Your task to perform on an android device: turn off location history Image 0: 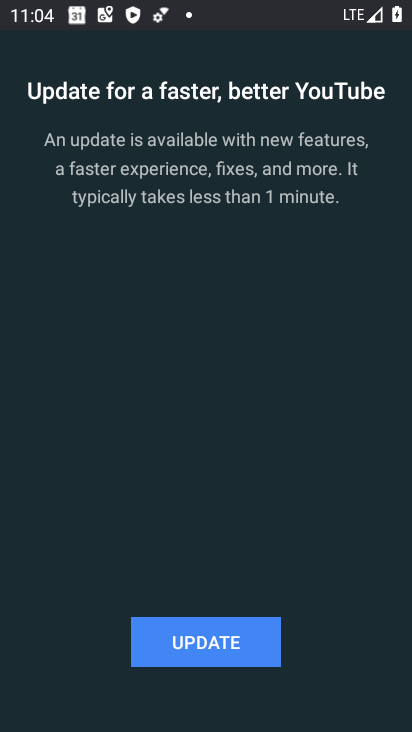
Step 0: press home button
Your task to perform on an android device: turn off location history Image 1: 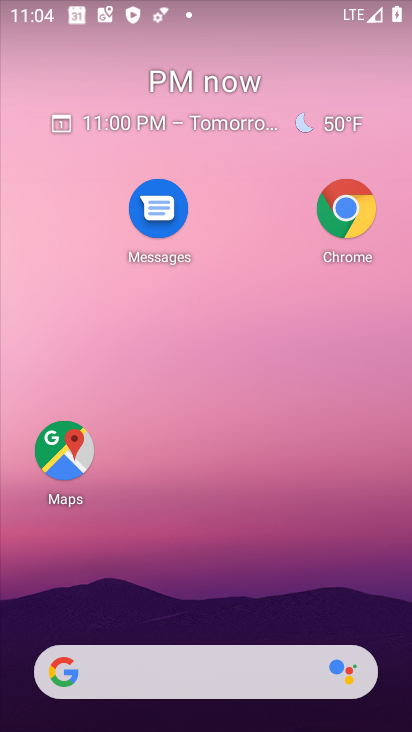
Step 1: drag from (189, 618) to (211, 29)
Your task to perform on an android device: turn off location history Image 2: 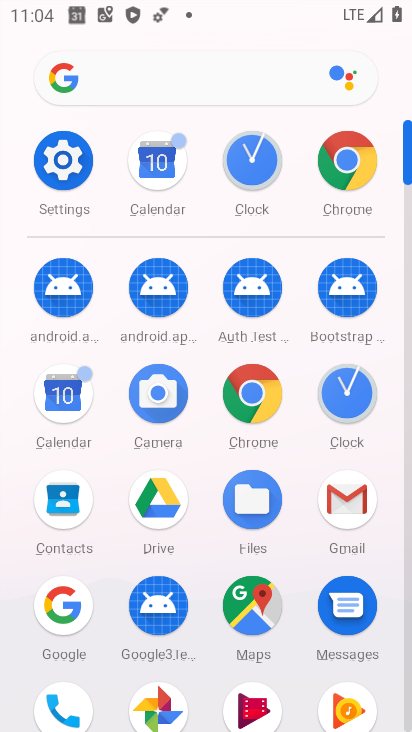
Step 2: click (64, 159)
Your task to perform on an android device: turn off location history Image 3: 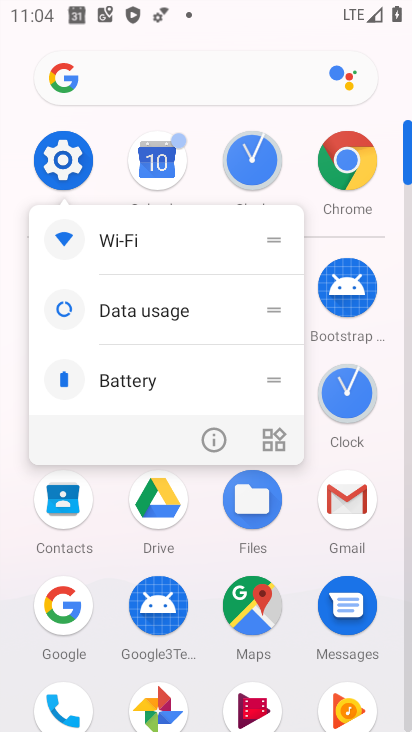
Step 3: click (64, 159)
Your task to perform on an android device: turn off location history Image 4: 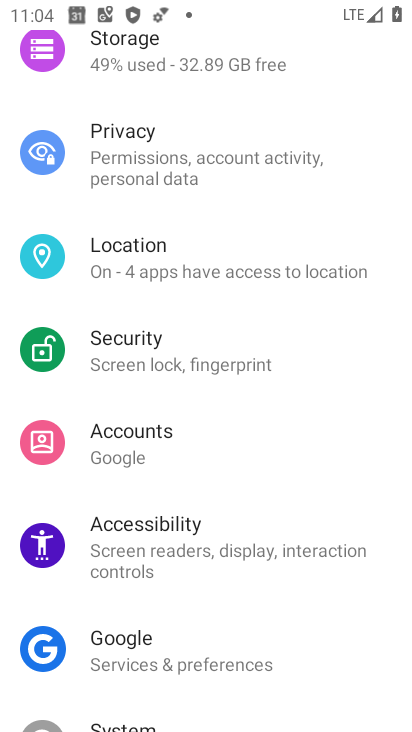
Step 4: click (129, 256)
Your task to perform on an android device: turn off location history Image 5: 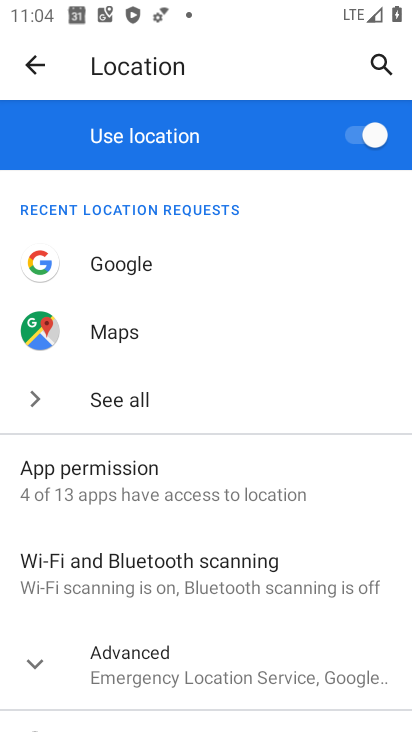
Step 5: click (220, 685)
Your task to perform on an android device: turn off location history Image 6: 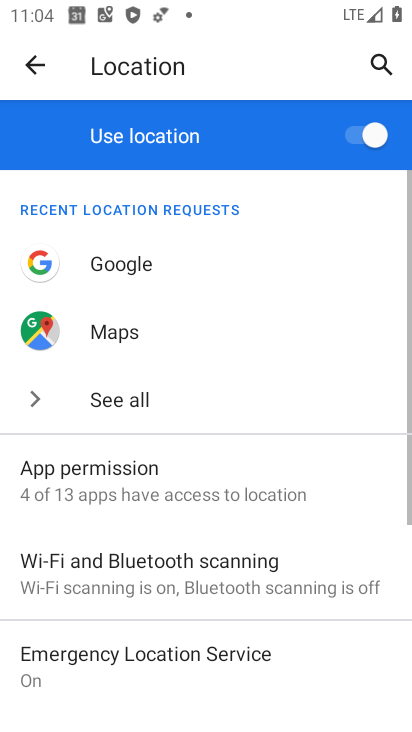
Step 6: drag from (214, 649) to (185, 226)
Your task to perform on an android device: turn off location history Image 7: 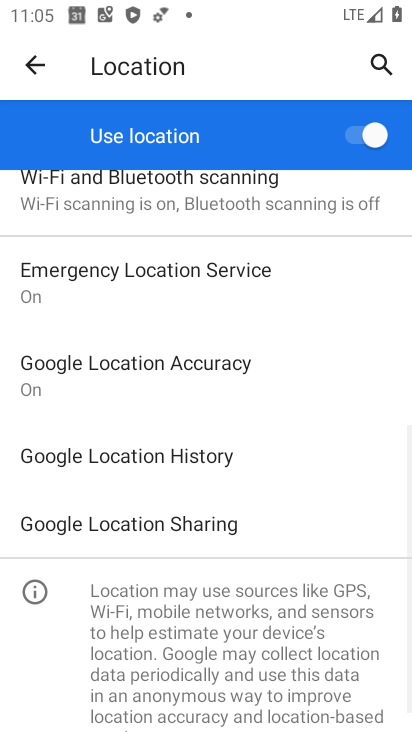
Step 7: click (139, 450)
Your task to perform on an android device: turn off location history Image 8: 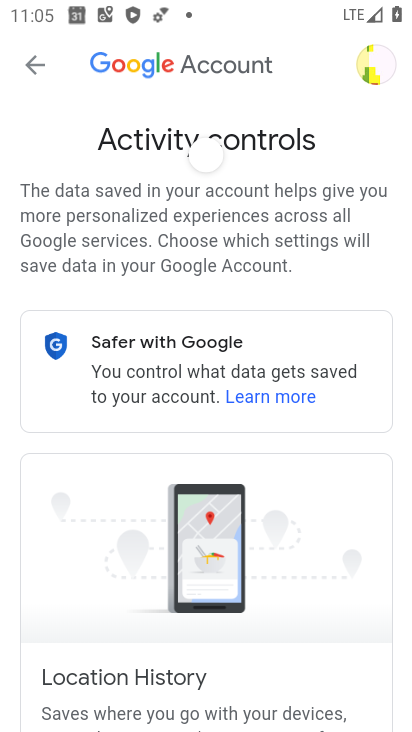
Step 8: drag from (228, 630) to (160, 54)
Your task to perform on an android device: turn off location history Image 9: 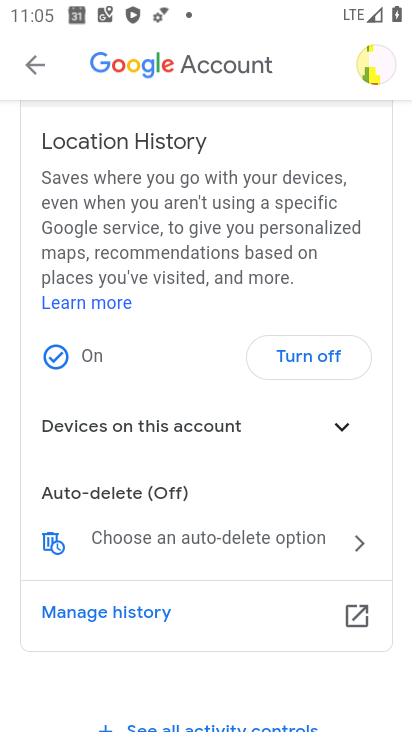
Step 9: click (308, 342)
Your task to perform on an android device: turn off location history Image 10: 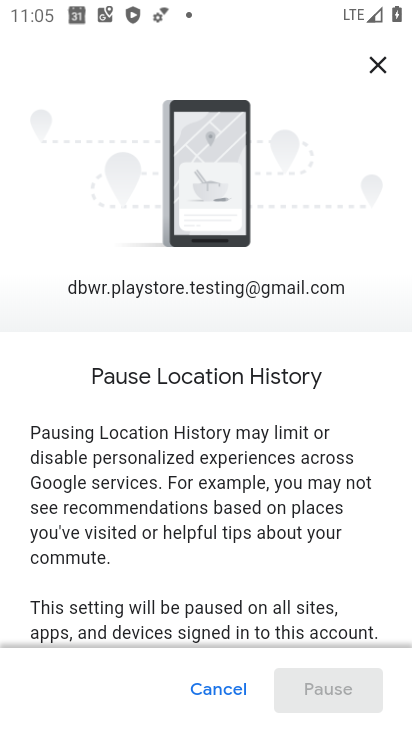
Step 10: drag from (300, 581) to (203, 14)
Your task to perform on an android device: turn off location history Image 11: 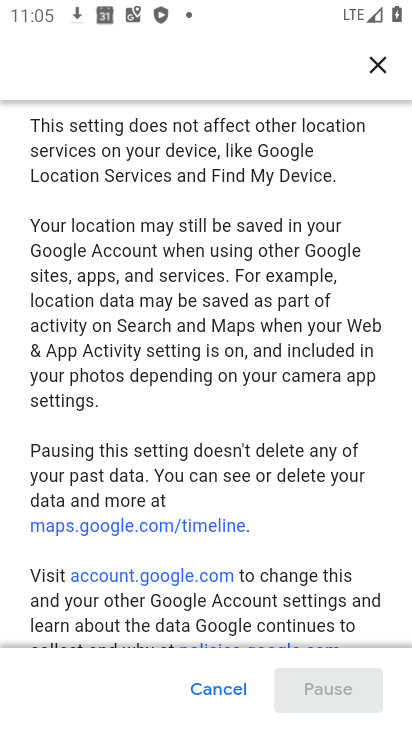
Step 11: drag from (232, 441) to (243, 12)
Your task to perform on an android device: turn off location history Image 12: 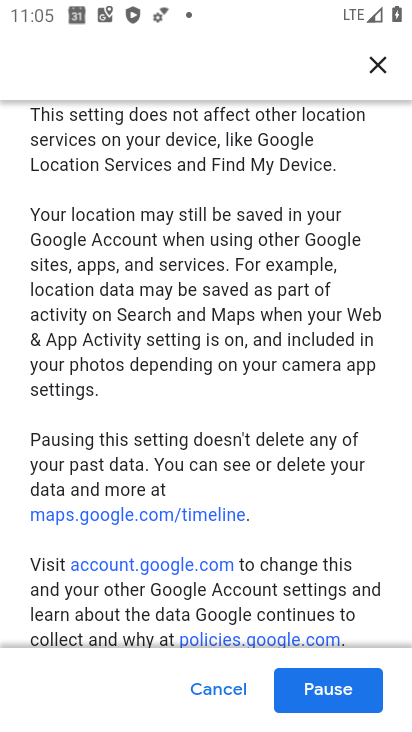
Step 12: click (332, 675)
Your task to perform on an android device: turn off location history Image 13: 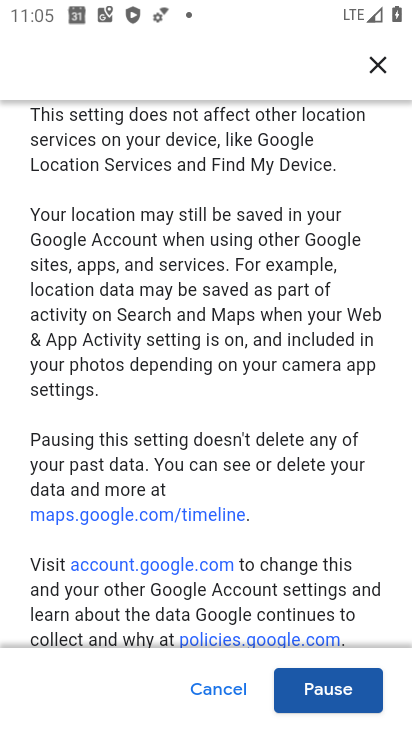
Step 13: click (336, 696)
Your task to perform on an android device: turn off location history Image 14: 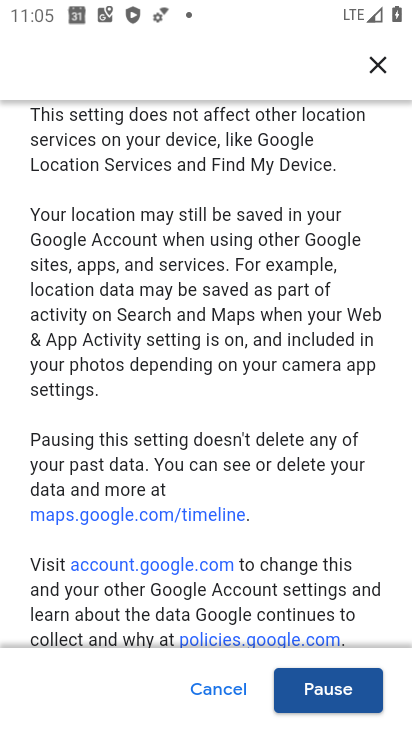
Step 14: drag from (306, 590) to (225, 36)
Your task to perform on an android device: turn off location history Image 15: 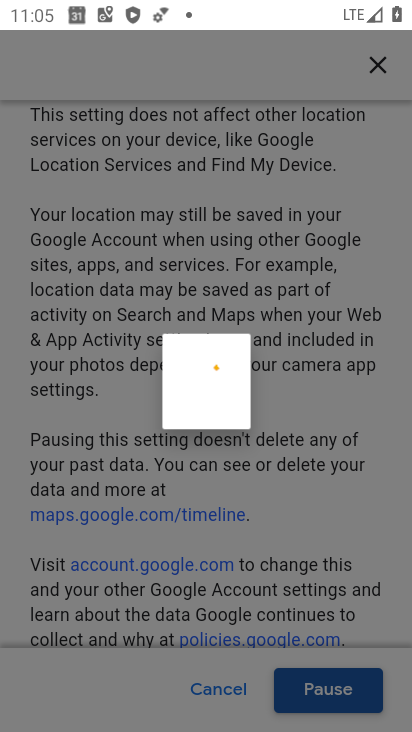
Step 15: click (323, 685)
Your task to perform on an android device: turn off location history Image 16: 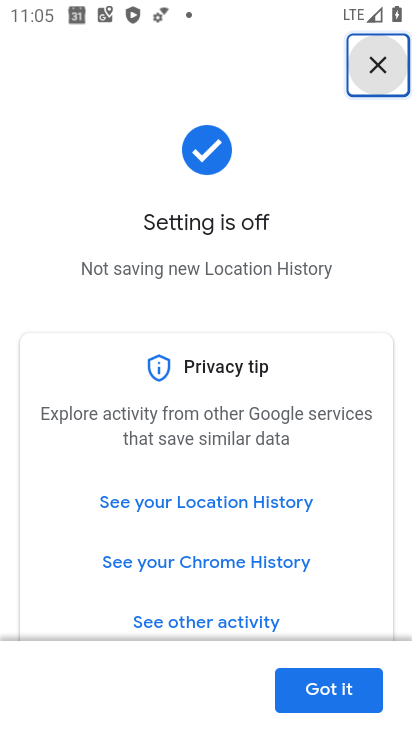
Step 16: click (293, 681)
Your task to perform on an android device: turn off location history Image 17: 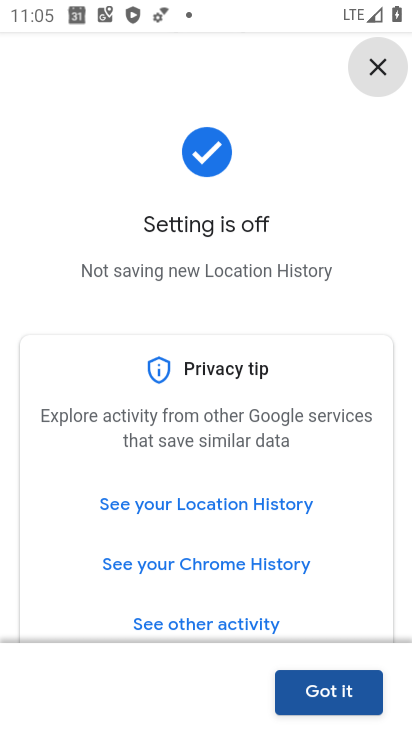
Step 17: task complete